Your task to perform on an android device: turn on data saver in the chrome app Image 0: 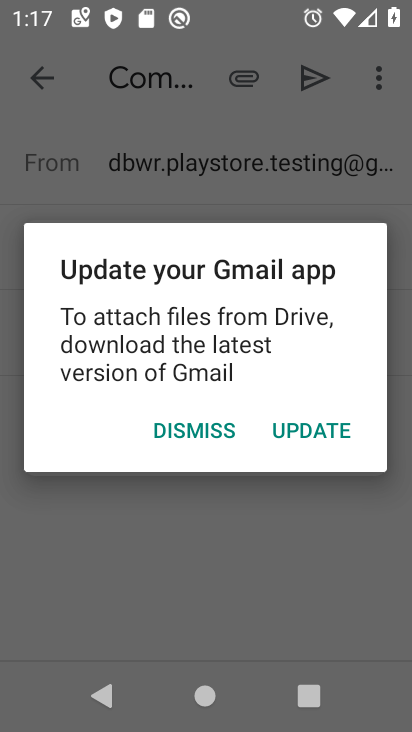
Step 0: press home button
Your task to perform on an android device: turn on data saver in the chrome app Image 1: 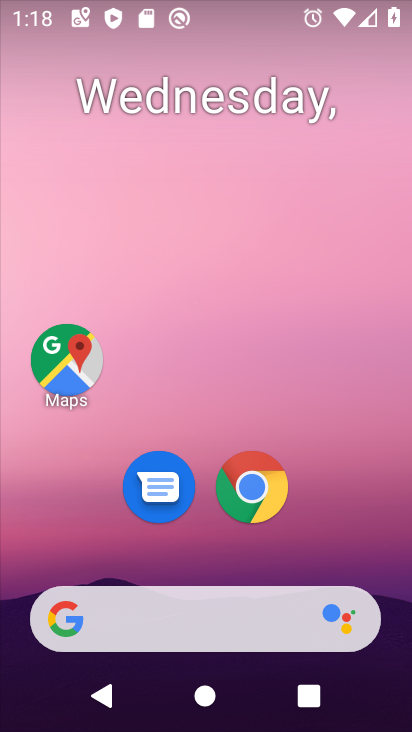
Step 1: drag from (123, 555) to (206, 119)
Your task to perform on an android device: turn on data saver in the chrome app Image 2: 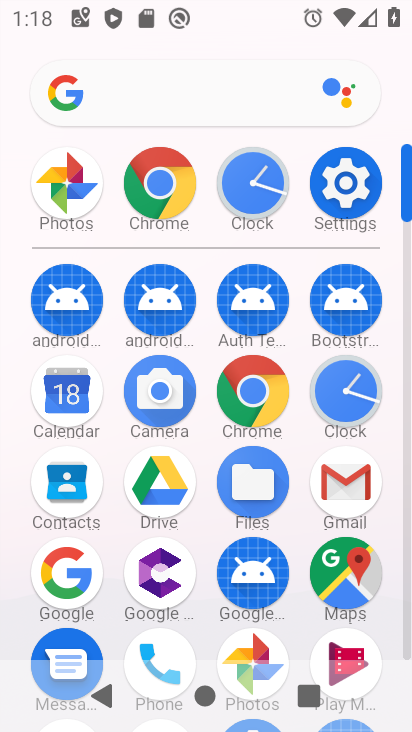
Step 2: drag from (195, 570) to (243, 293)
Your task to perform on an android device: turn on data saver in the chrome app Image 3: 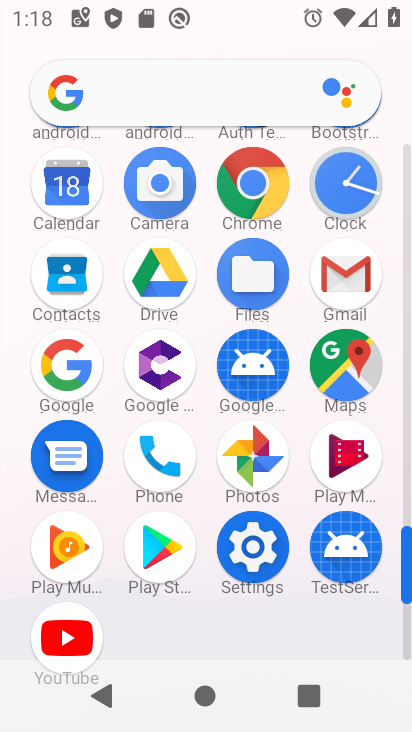
Step 3: click (241, 182)
Your task to perform on an android device: turn on data saver in the chrome app Image 4: 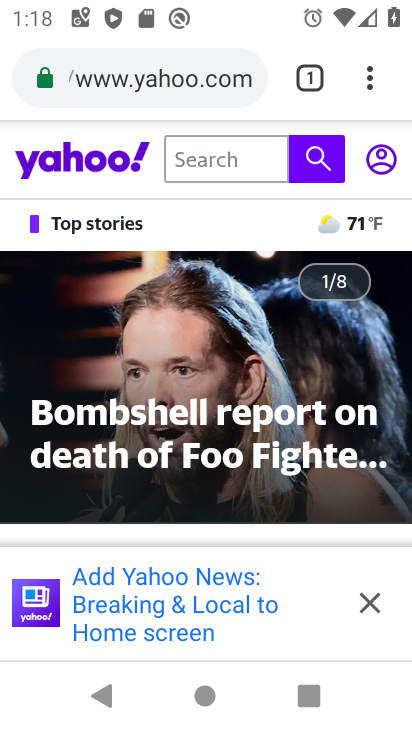
Step 4: click (380, 77)
Your task to perform on an android device: turn on data saver in the chrome app Image 5: 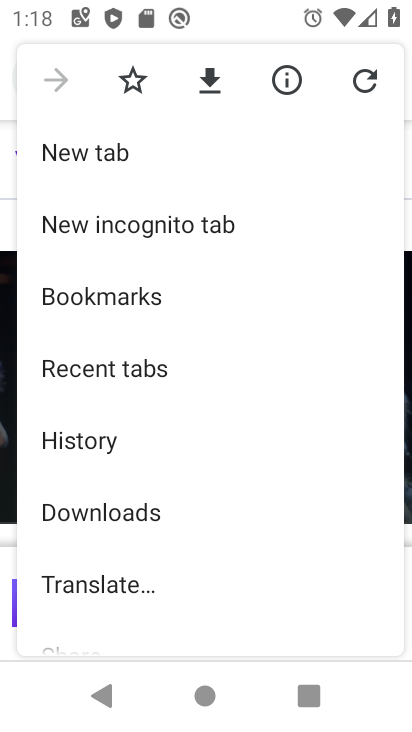
Step 5: drag from (93, 563) to (160, 202)
Your task to perform on an android device: turn on data saver in the chrome app Image 6: 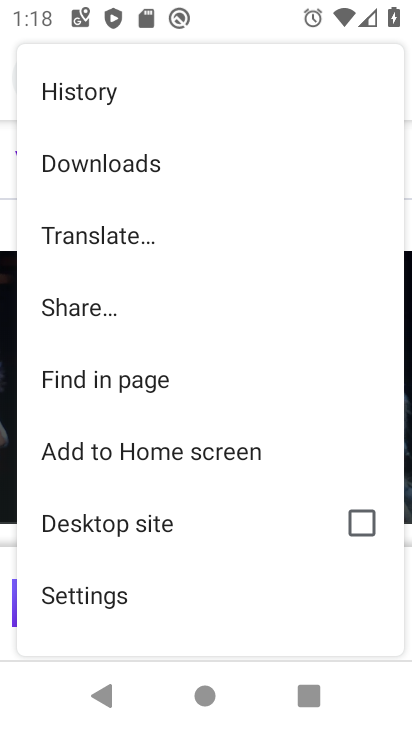
Step 6: drag from (82, 580) to (143, 282)
Your task to perform on an android device: turn on data saver in the chrome app Image 7: 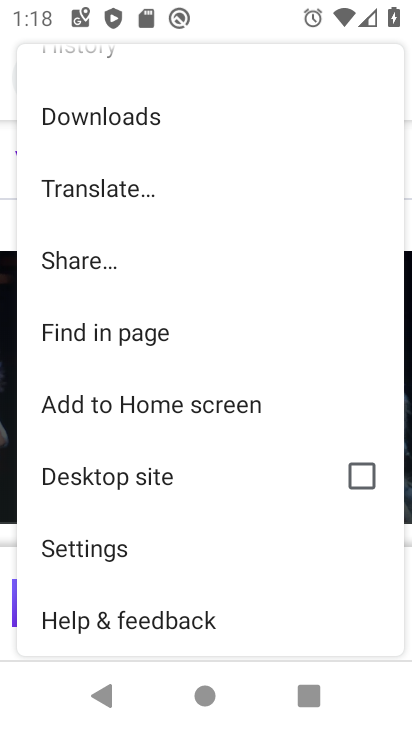
Step 7: click (80, 565)
Your task to perform on an android device: turn on data saver in the chrome app Image 8: 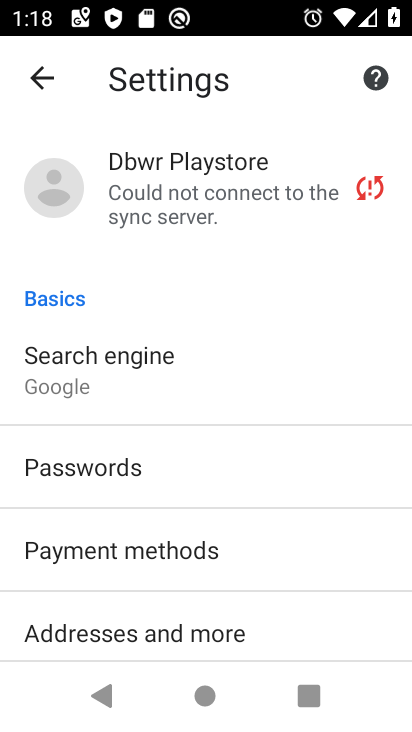
Step 8: drag from (143, 565) to (193, 364)
Your task to perform on an android device: turn on data saver in the chrome app Image 9: 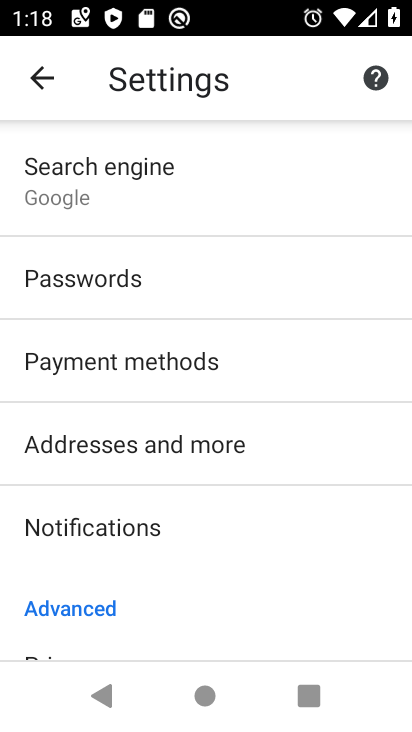
Step 9: drag from (181, 552) to (215, 387)
Your task to perform on an android device: turn on data saver in the chrome app Image 10: 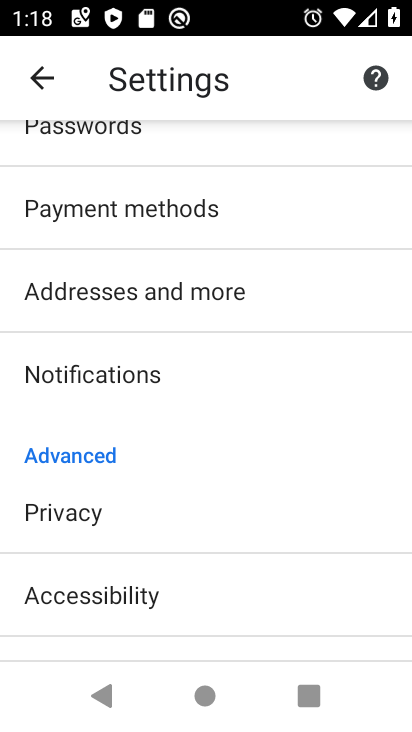
Step 10: drag from (200, 583) to (216, 359)
Your task to perform on an android device: turn on data saver in the chrome app Image 11: 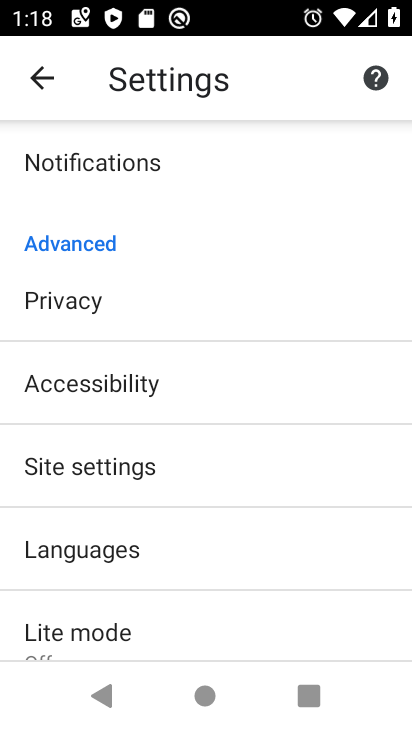
Step 11: click (133, 626)
Your task to perform on an android device: turn on data saver in the chrome app Image 12: 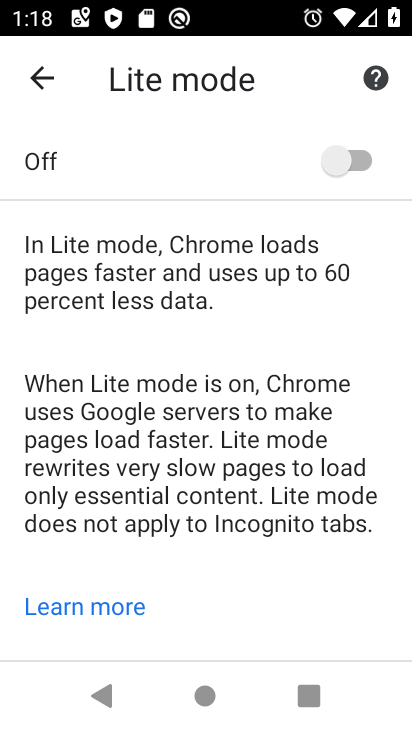
Step 12: click (367, 162)
Your task to perform on an android device: turn on data saver in the chrome app Image 13: 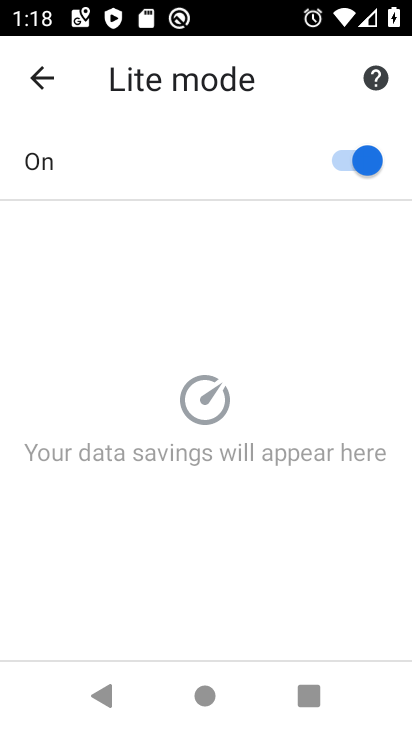
Step 13: task complete